Your task to perform on an android device: turn on wifi Image 0: 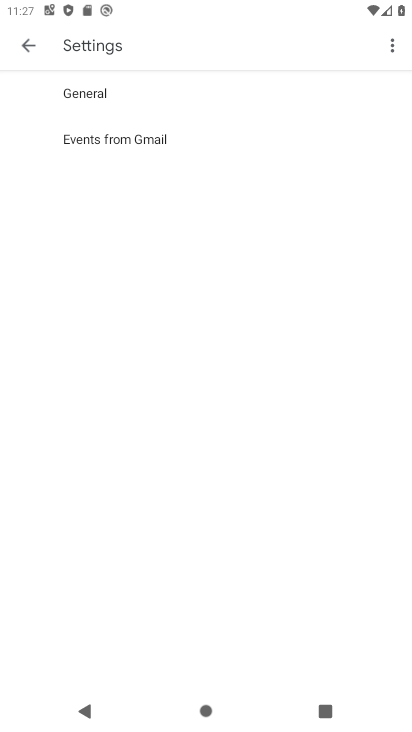
Step 0: press home button
Your task to perform on an android device: turn on wifi Image 1: 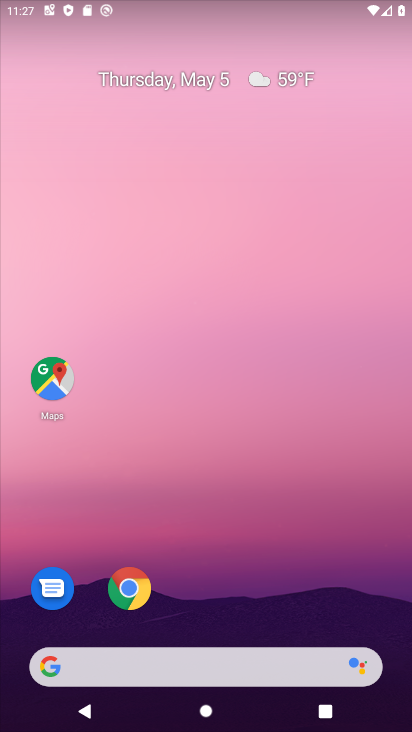
Step 1: drag from (195, 462) to (191, 53)
Your task to perform on an android device: turn on wifi Image 2: 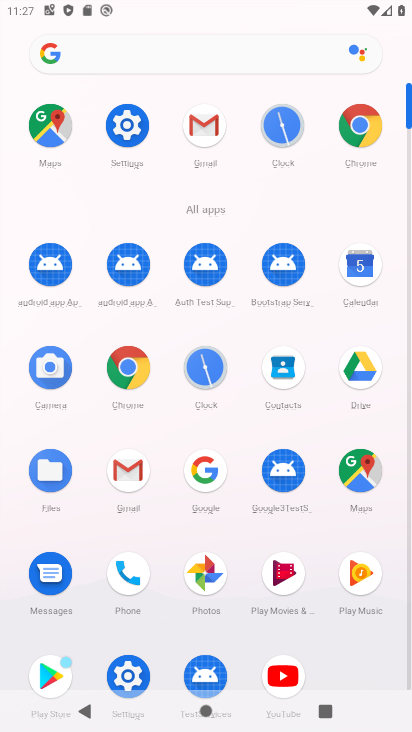
Step 2: click (126, 124)
Your task to perform on an android device: turn on wifi Image 3: 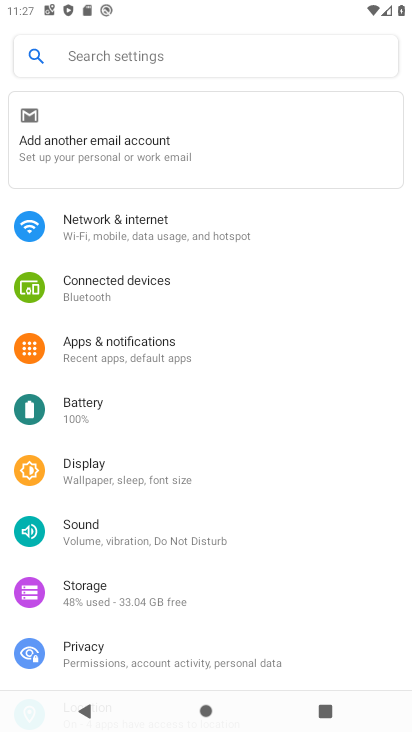
Step 3: click (142, 216)
Your task to perform on an android device: turn on wifi Image 4: 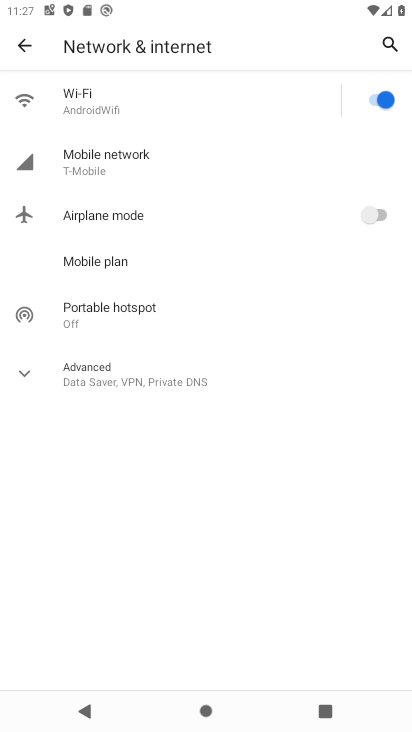
Step 4: task complete